Your task to perform on an android device: toggle priority inbox in the gmail app Image 0: 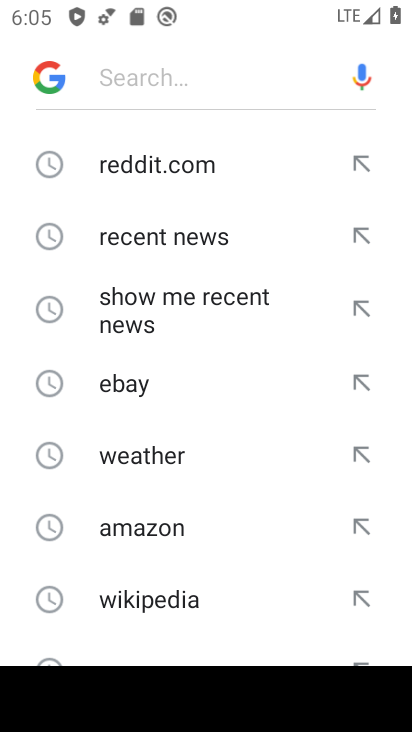
Step 0: press home button
Your task to perform on an android device: toggle priority inbox in the gmail app Image 1: 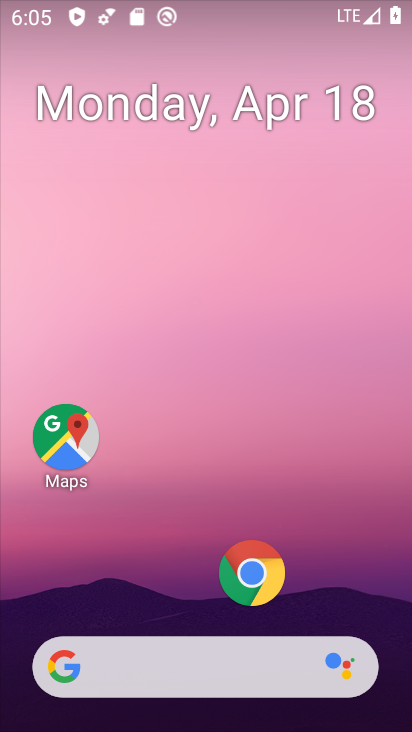
Step 1: drag from (149, 559) to (268, 77)
Your task to perform on an android device: toggle priority inbox in the gmail app Image 2: 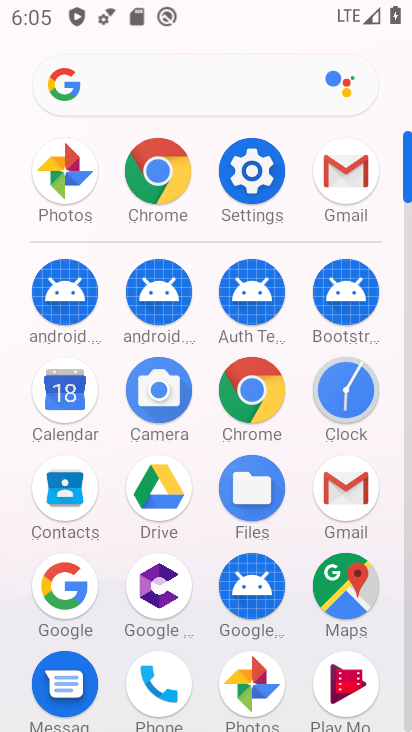
Step 2: click (338, 492)
Your task to perform on an android device: toggle priority inbox in the gmail app Image 3: 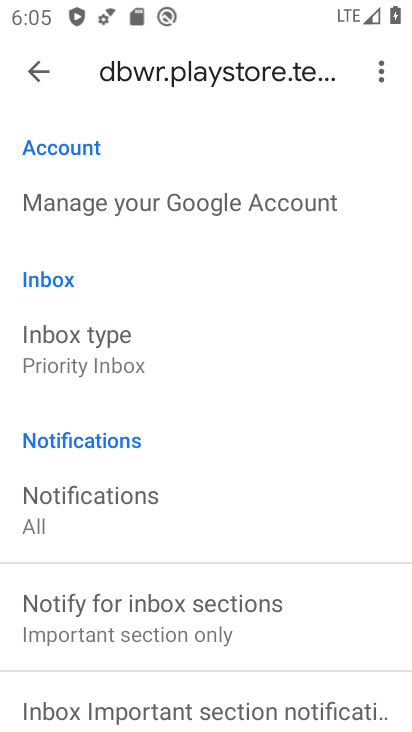
Step 3: click (107, 351)
Your task to perform on an android device: toggle priority inbox in the gmail app Image 4: 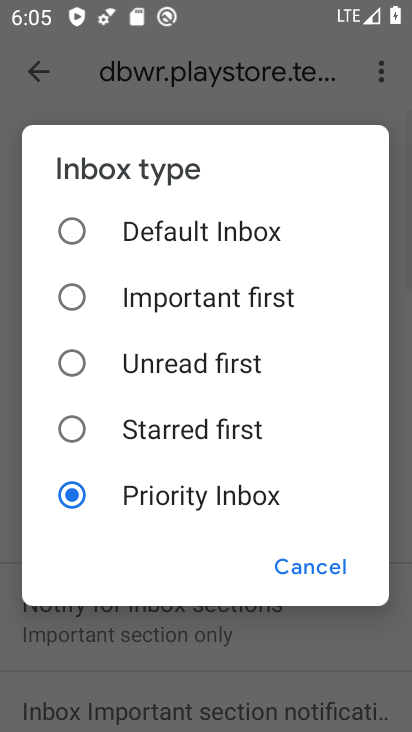
Step 4: click (81, 223)
Your task to perform on an android device: toggle priority inbox in the gmail app Image 5: 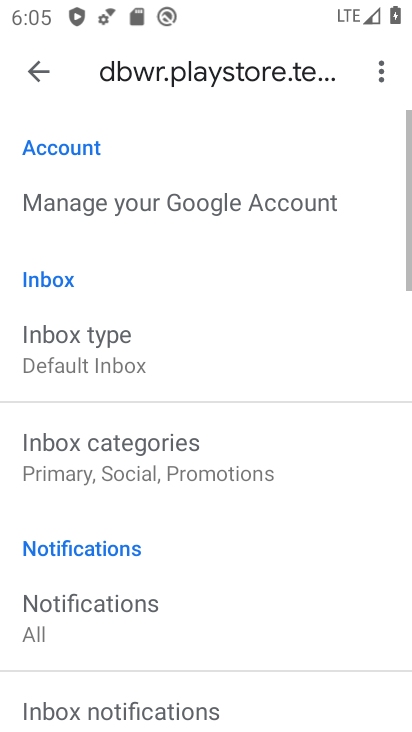
Step 5: task complete